Your task to perform on an android device: find photos in the google photos app Image 0: 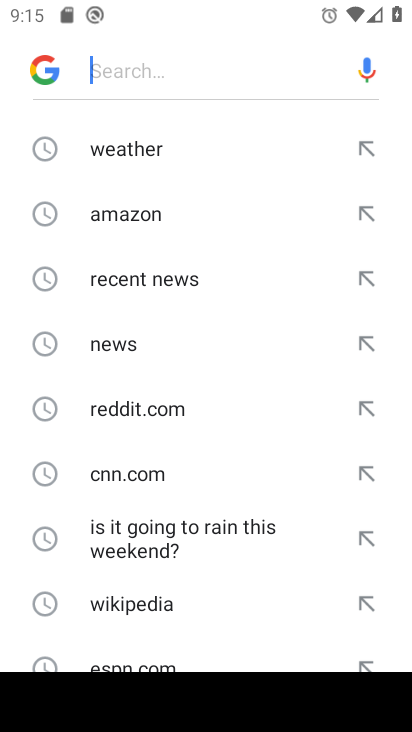
Step 0: press home button
Your task to perform on an android device: find photos in the google photos app Image 1: 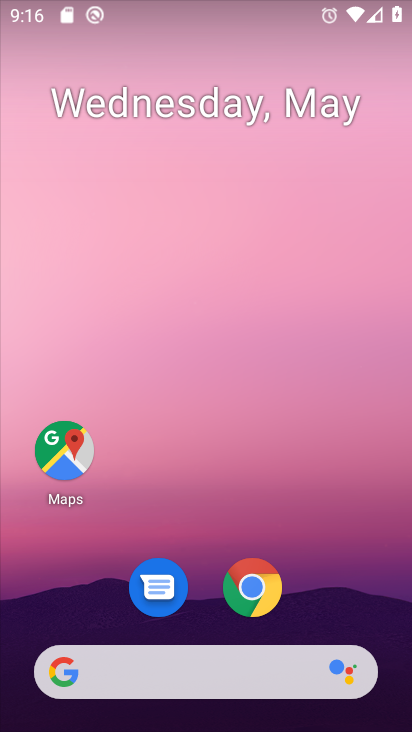
Step 1: drag from (190, 606) to (259, 278)
Your task to perform on an android device: find photos in the google photos app Image 2: 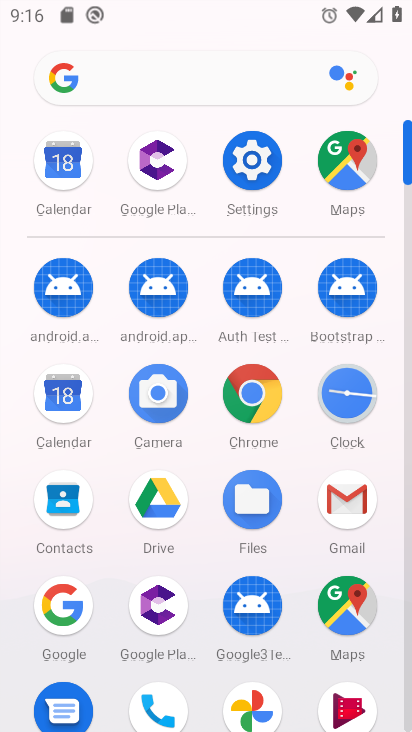
Step 2: drag from (214, 600) to (260, 345)
Your task to perform on an android device: find photos in the google photos app Image 3: 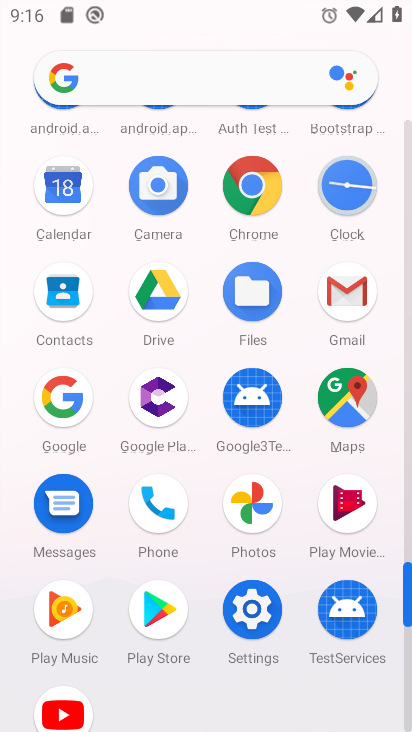
Step 3: click (258, 521)
Your task to perform on an android device: find photos in the google photos app Image 4: 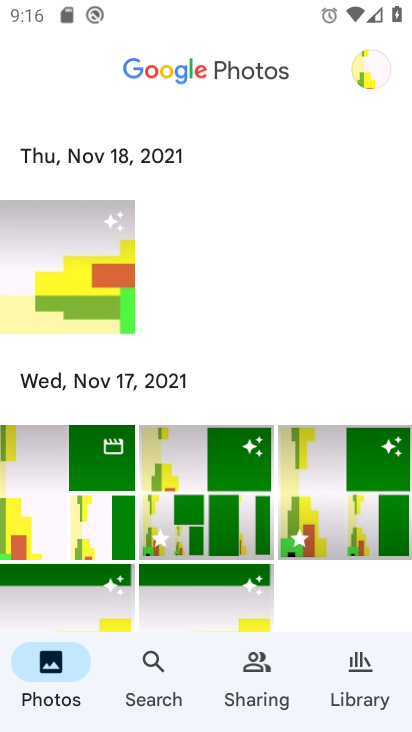
Step 4: task complete